Your task to perform on an android device: Search for the new nike shoes on Target Image 0: 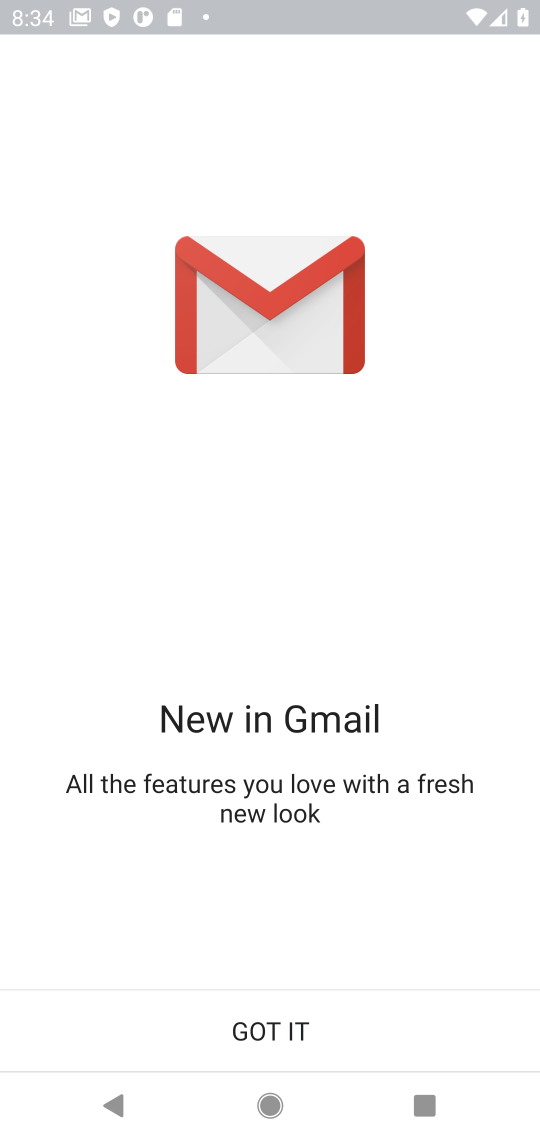
Step 0: press home button
Your task to perform on an android device: Search for the new nike shoes on Target Image 1: 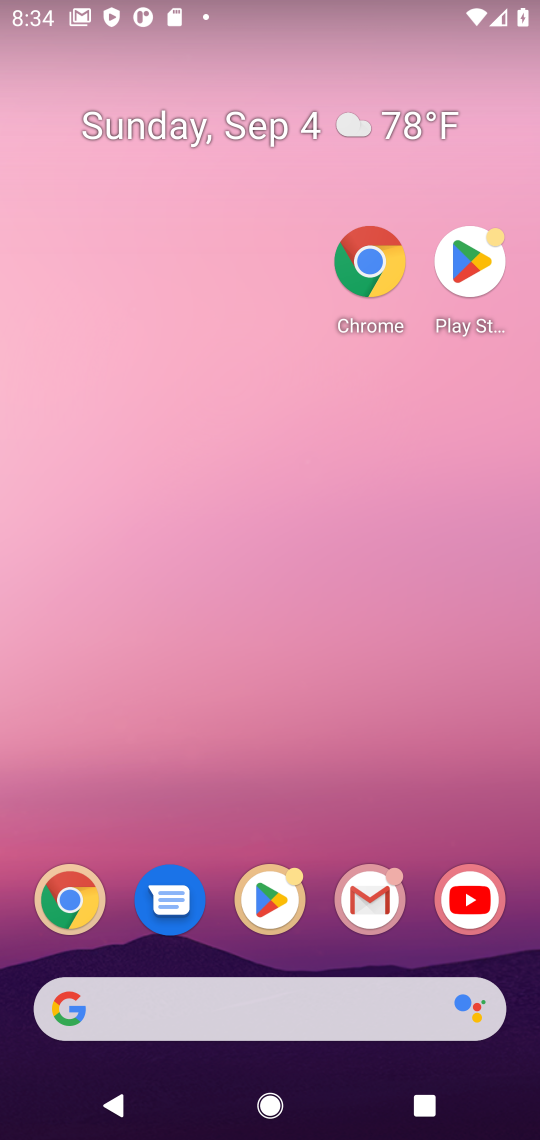
Step 1: click (384, 306)
Your task to perform on an android device: Search for the new nike shoes on Target Image 2: 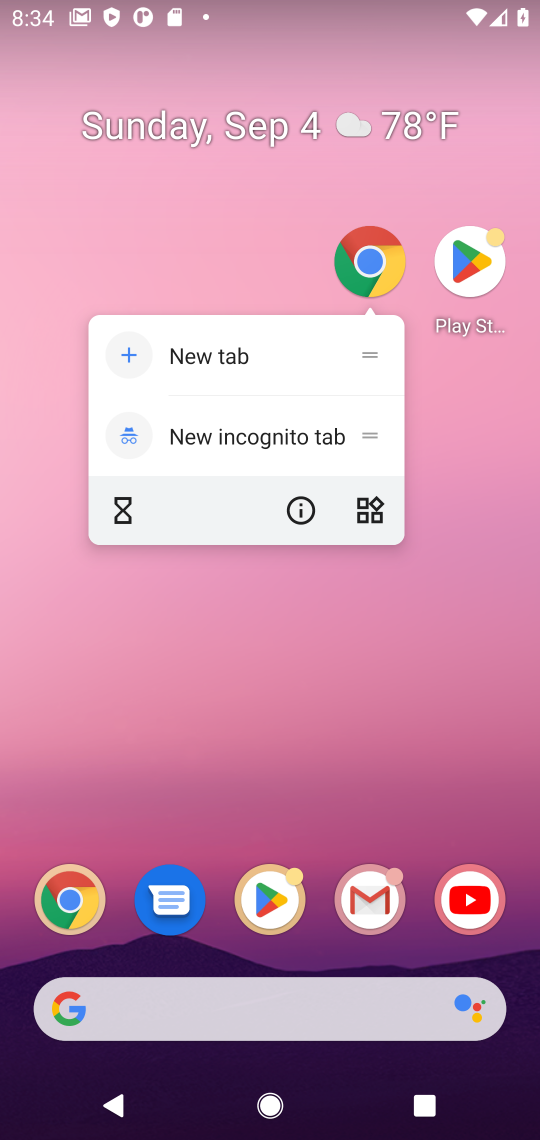
Step 2: click (384, 306)
Your task to perform on an android device: Search for the new nike shoes on Target Image 3: 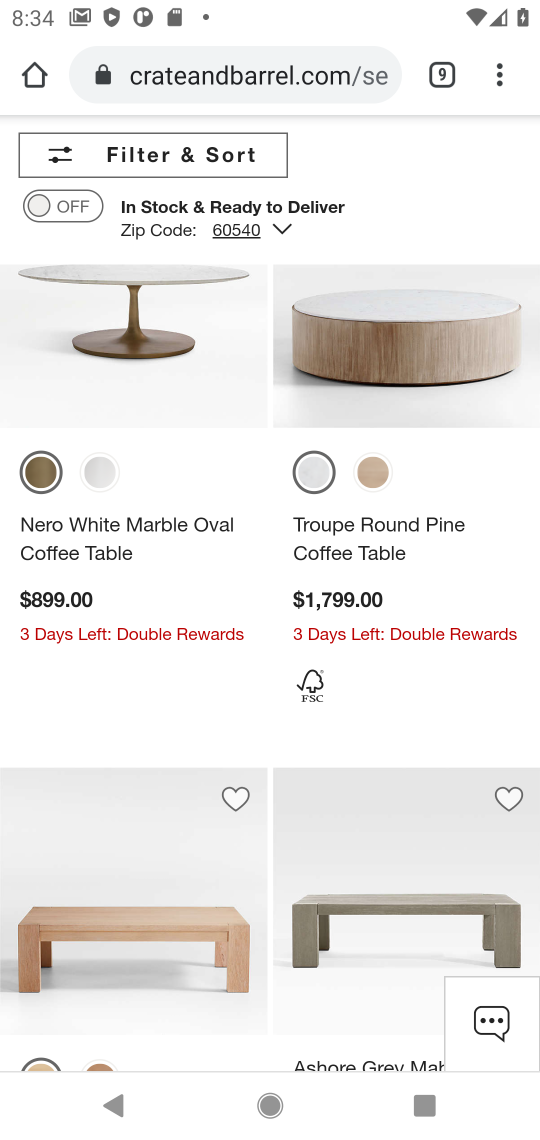
Step 3: click (435, 74)
Your task to perform on an android device: Search for the new nike shoes on Target Image 4: 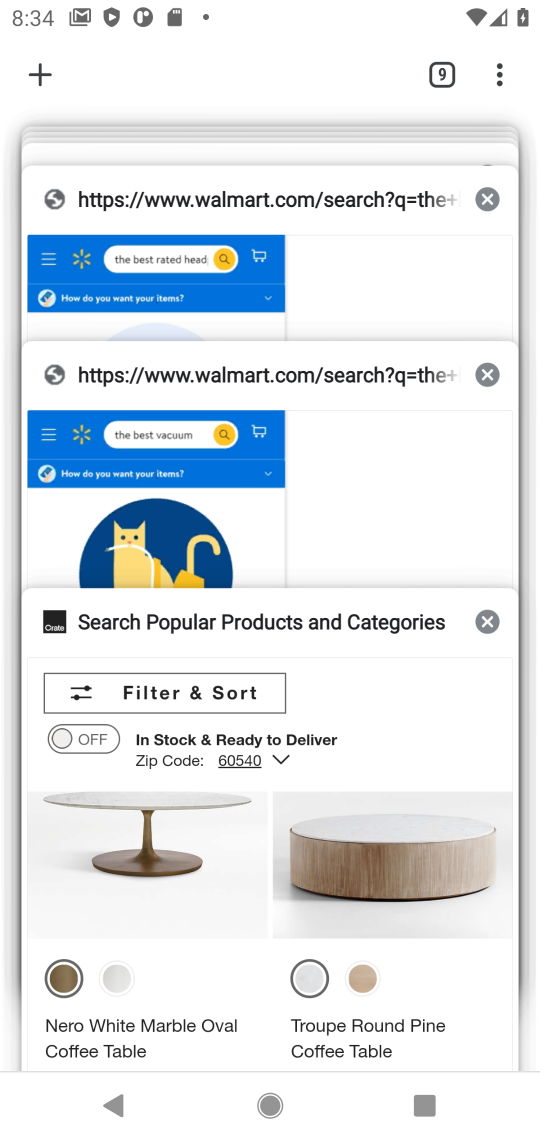
Step 4: click (33, 72)
Your task to perform on an android device: Search for the new nike shoes on Target Image 5: 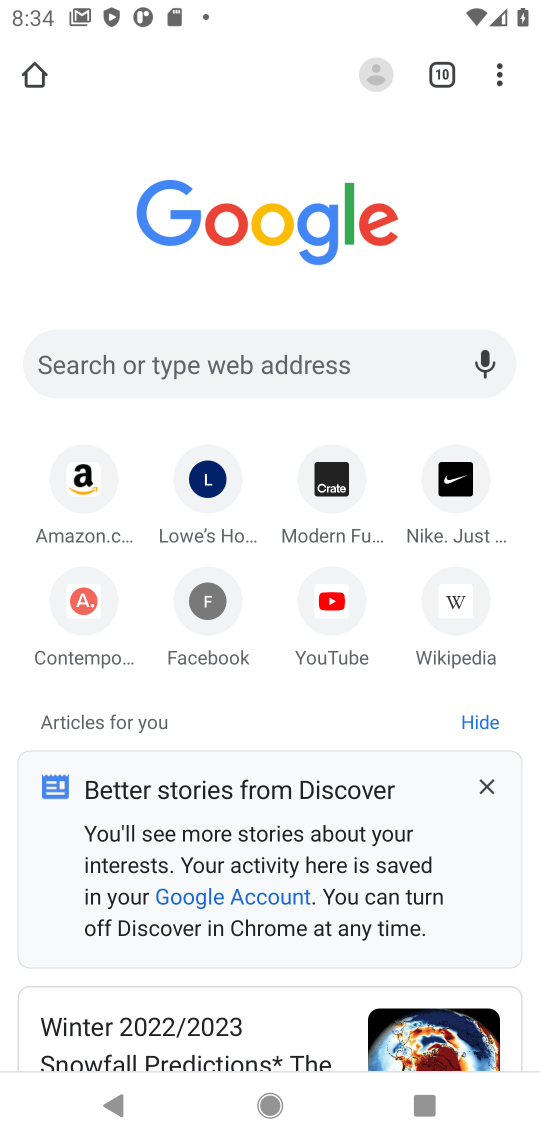
Step 5: click (269, 364)
Your task to perform on an android device: Search for the new nike shoes on Target Image 6: 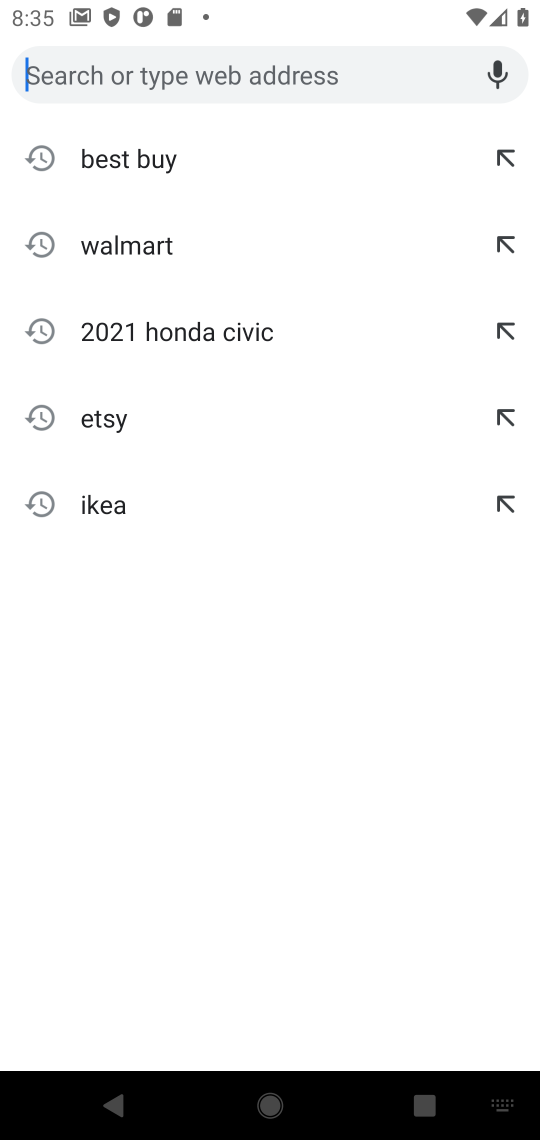
Step 6: type "Target"
Your task to perform on an android device: Search for the new nike shoes on Target Image 7: 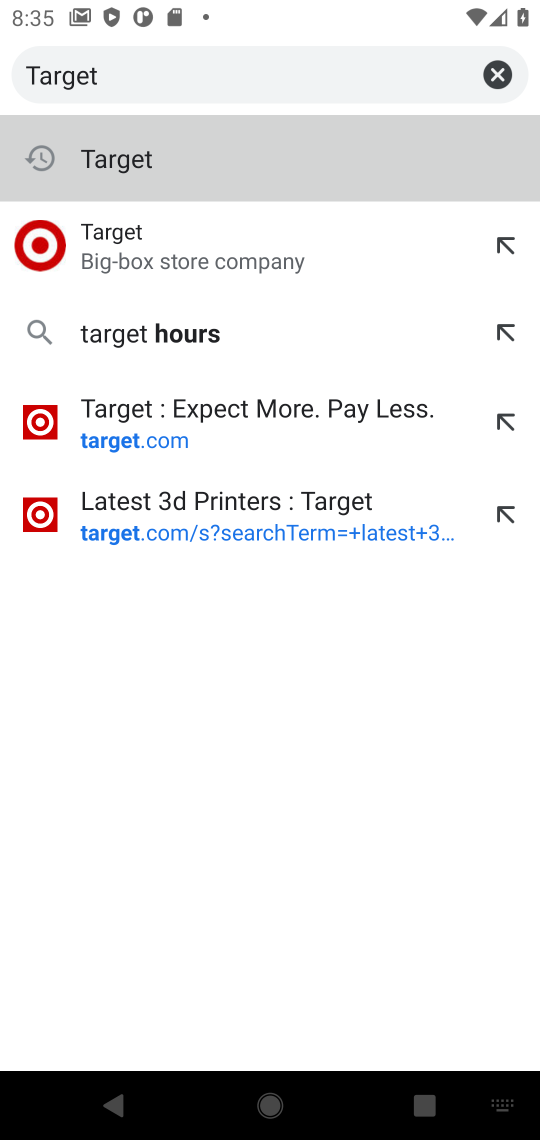
Step 7: click (100, 150)
Your task to perform on an android device: Search for the new nike shoes on Target Image 8: 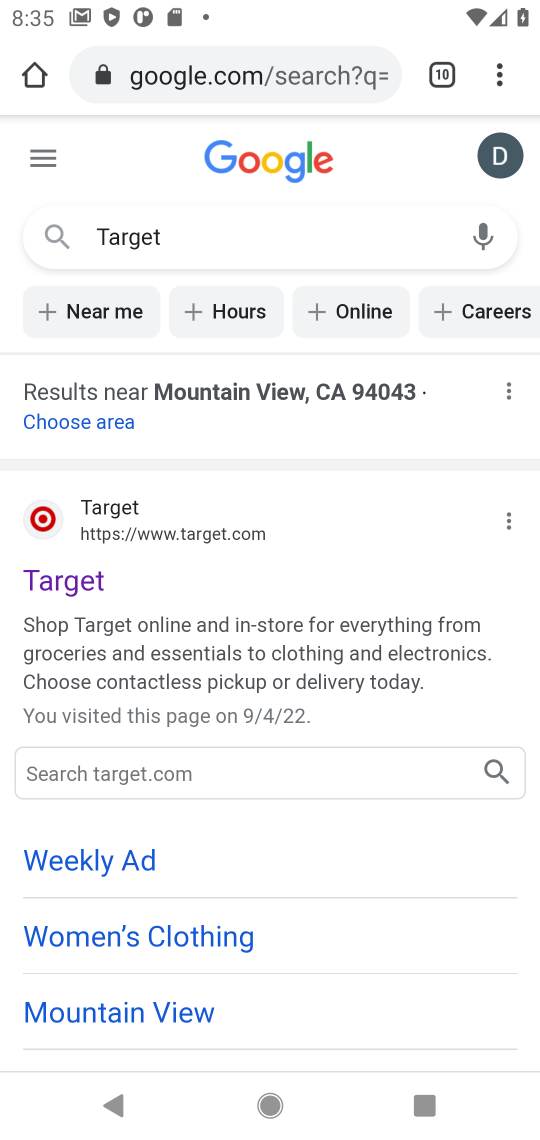
Step 8: click (64, 567)
Your task to perform on an android device: Search for the new nike shoes on Target Image 9: 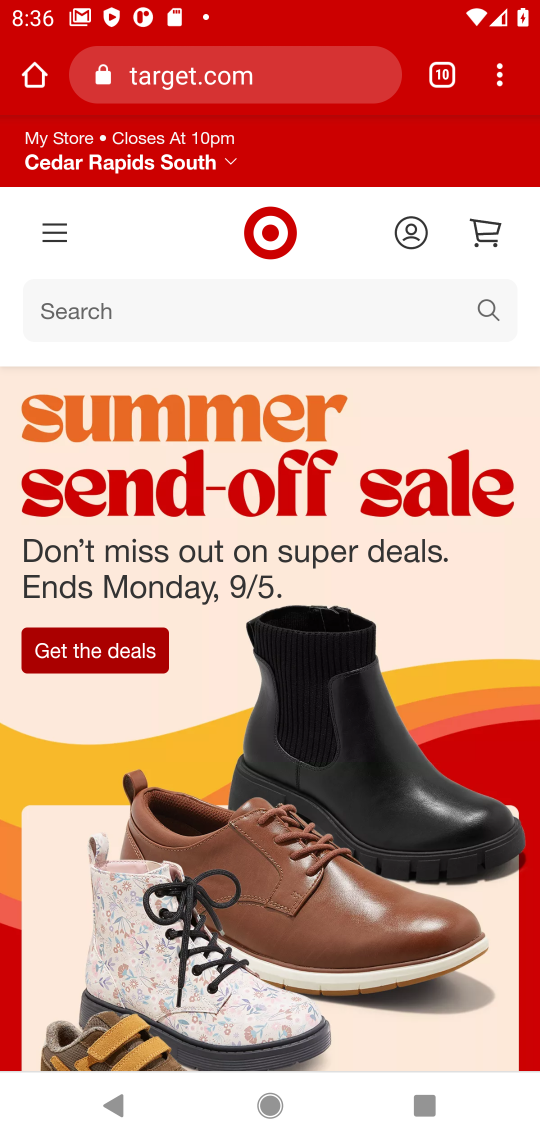
Step 9: click (132, 335)
Your task to perform on an android device: Search for the new nike shoes on Target Image 10: 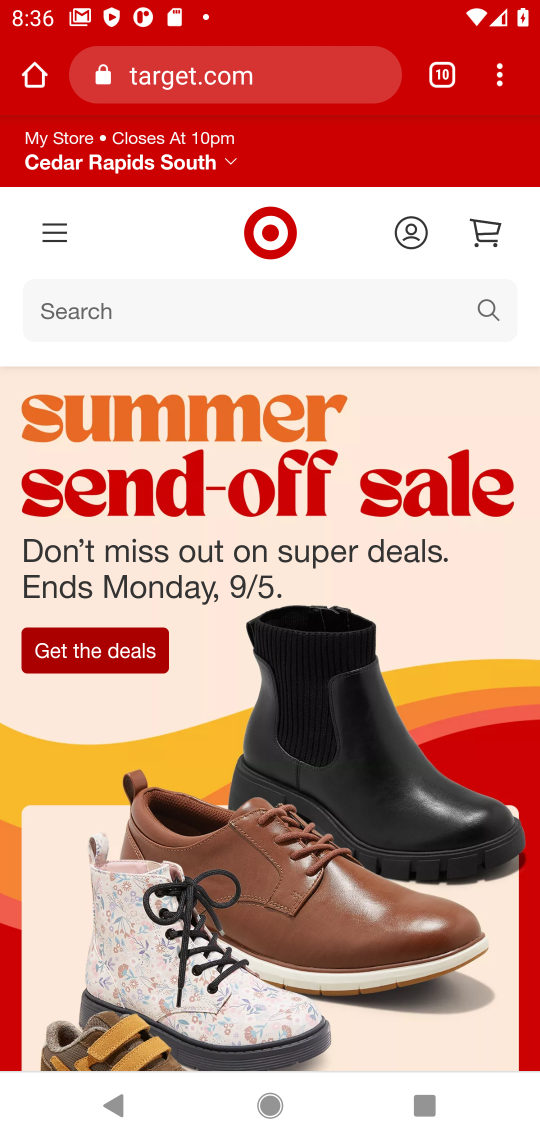
Step 10: click (128, 308)
Your task to perform on an android device: Search for the new nike shoes on Target Image 11: 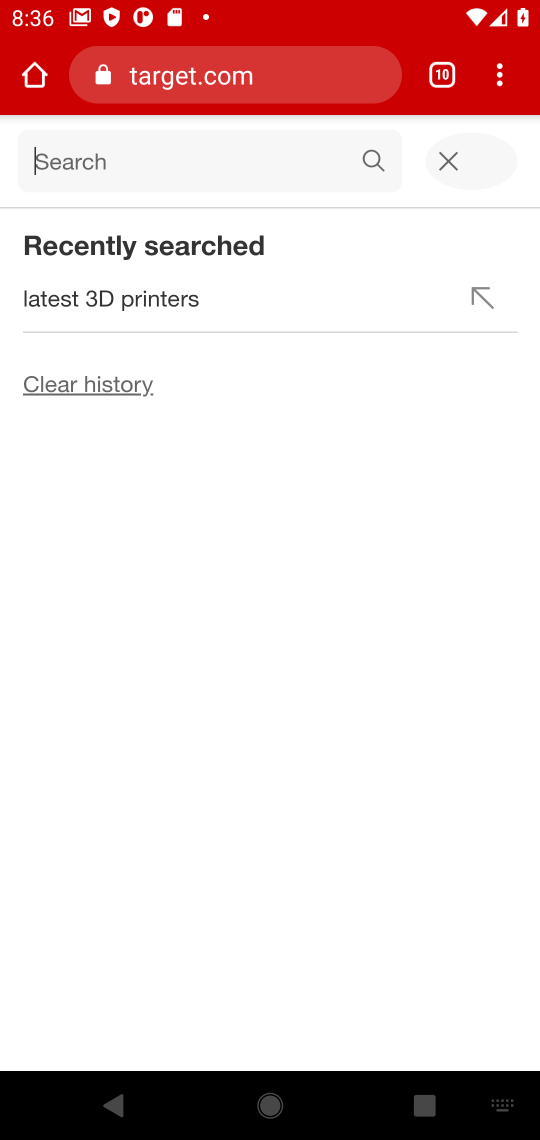
Step 11: click (440, 1113)
Your task to perform on an android device: Search for the new nike shoes on Target Image 12: 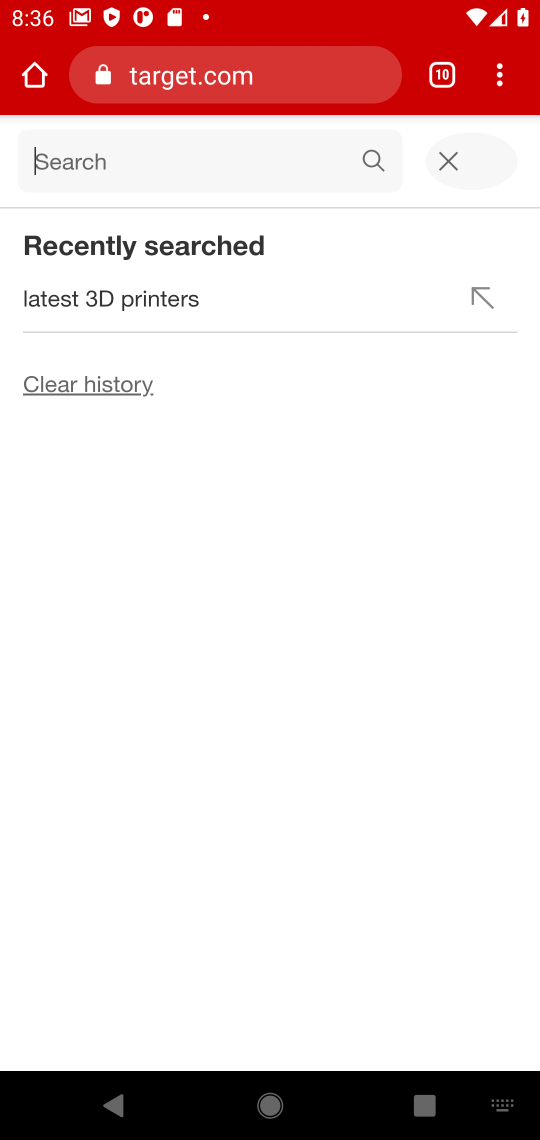
Step 12: type "the new nike shoes"
Your task to perform on an android device: Search for the new nike shoes on Target Image 13: 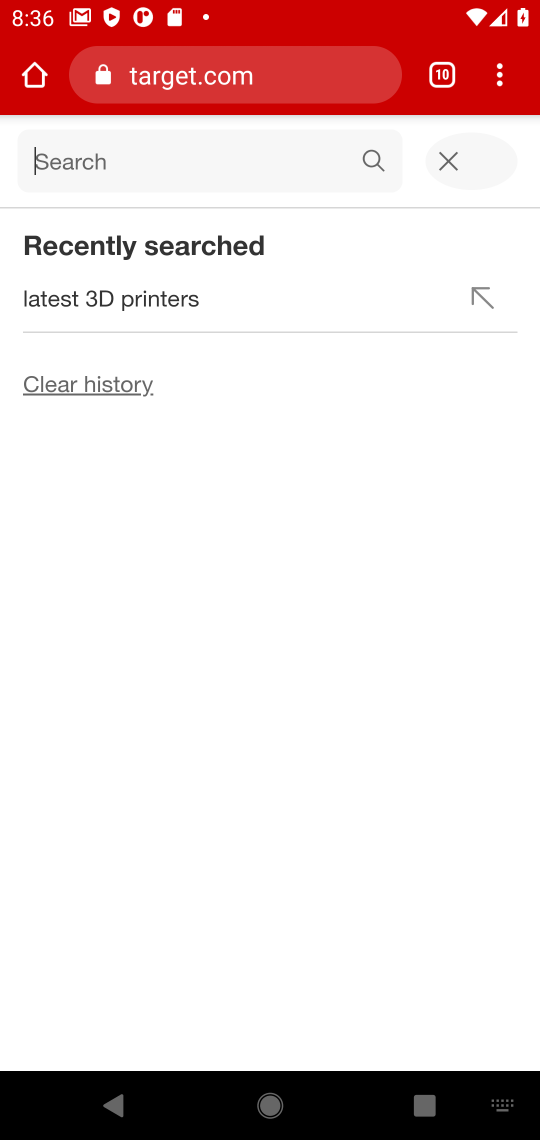
Step 13: click (540, 701)
Your task to perform on an android device: Search for the new nike shoes on Target Image 14: 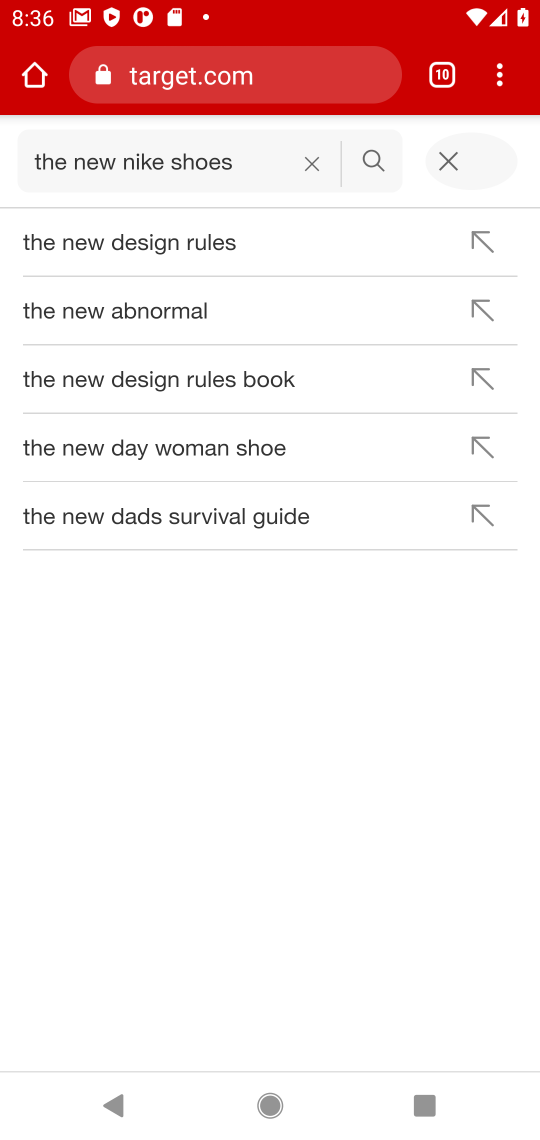
Step 14: click (354, 164)
Your task to perform on an android device: Search for the new nike shoes on Target Image 15: 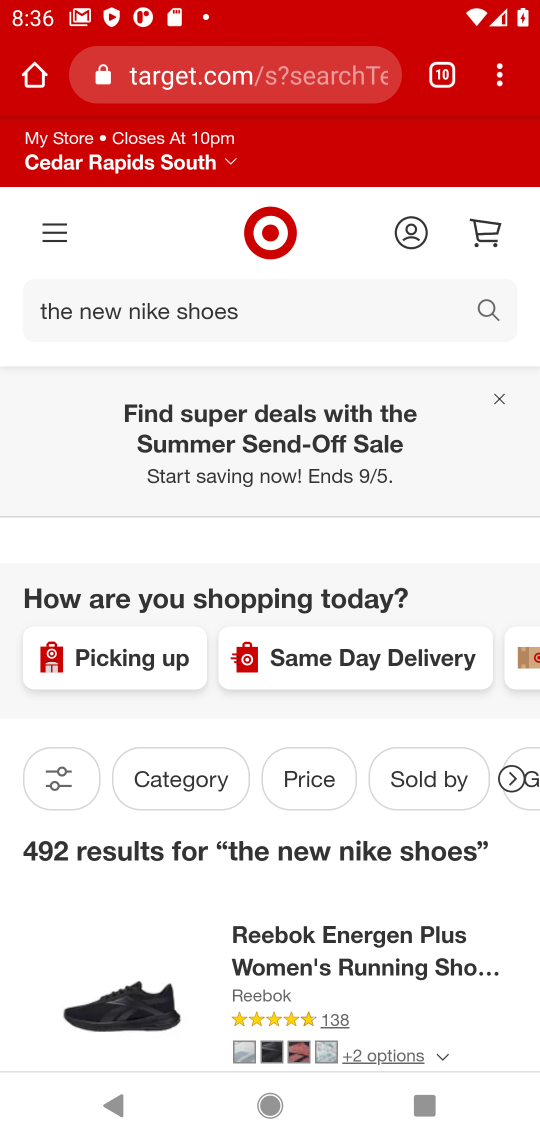
Step 15: click (502, 398)
Your task to perform on an android device: Search for the new nike shoes on Target Image 16: 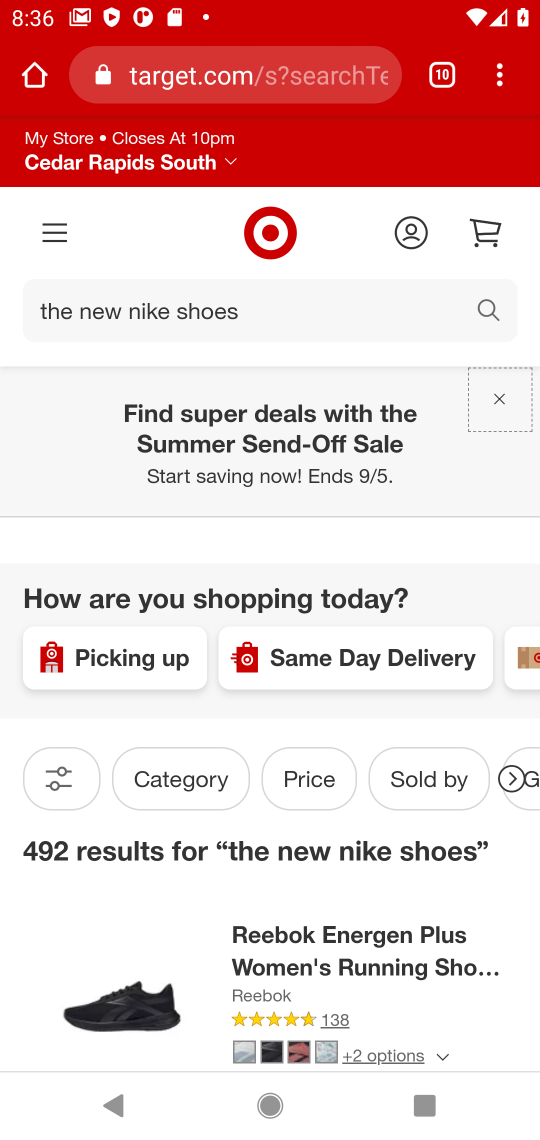
Step 16: click (502, 398)
Your task to perform on an android device: Search for the new nike shoes on Target Image 17: 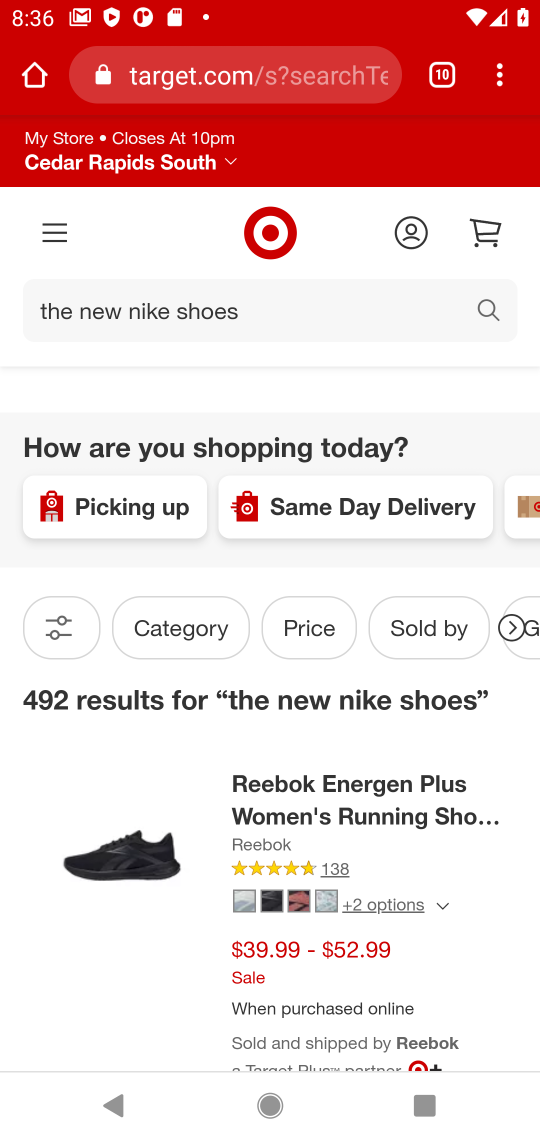
Step 17: task complete